Your task to perform on an android device: What's the weather going to be this weekend? Image 0: 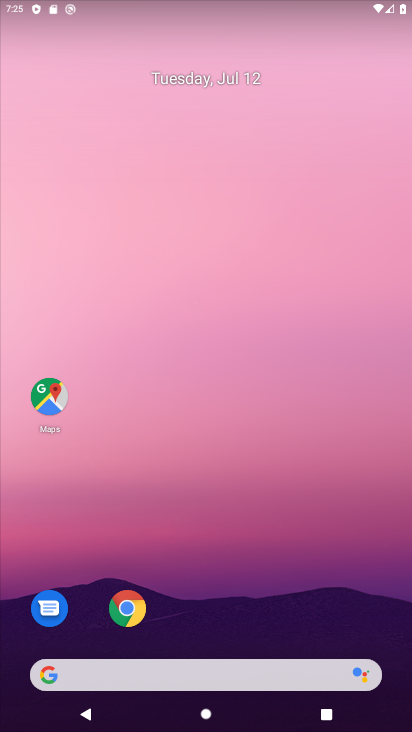
Step 0: drag from (264, 617) to (207, 5)
Your task to perform on an android device: What's the weather going to be this weekend? Image 1: 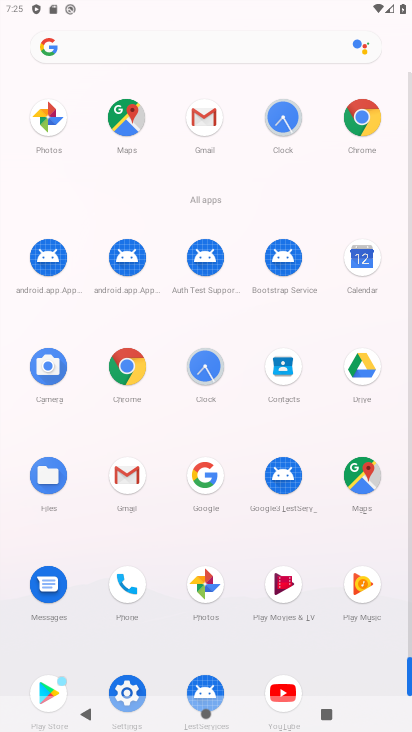
Step 1: click (368, 114)
Your task to perform on an android device: What's the weather going to be this weekend? Image 2: 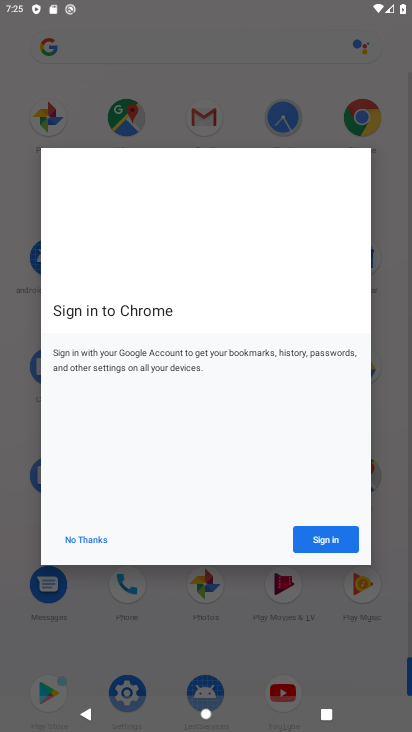
Step 2: click (77, 540)
Your task to perform on an android device: What's the weather going to be this weekend? Image 3: 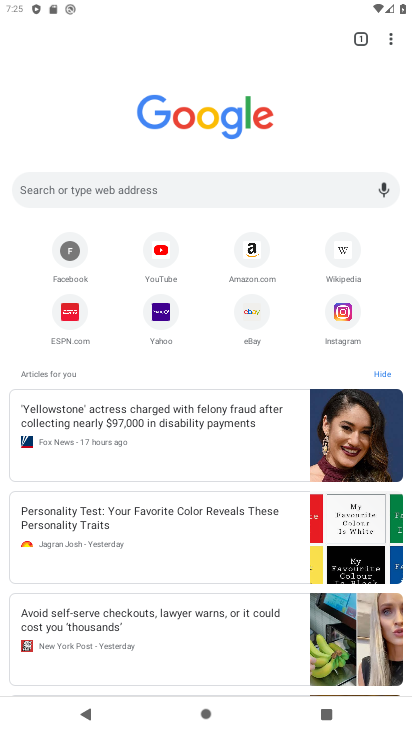
Step 3: click (209, 186)
Your task to perform on an android device: What's the weather going to be this weekend? Image 4: 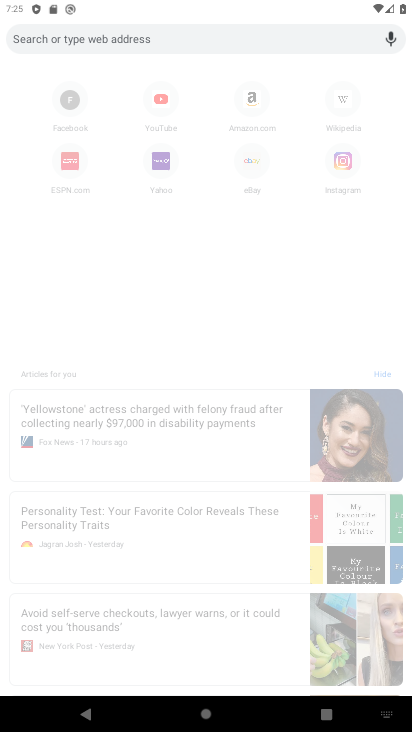
Step 4: type "What's the weather going to be this weekend "
Your task to perform on an android device: What's the weather going to be this weekend? Image 5: 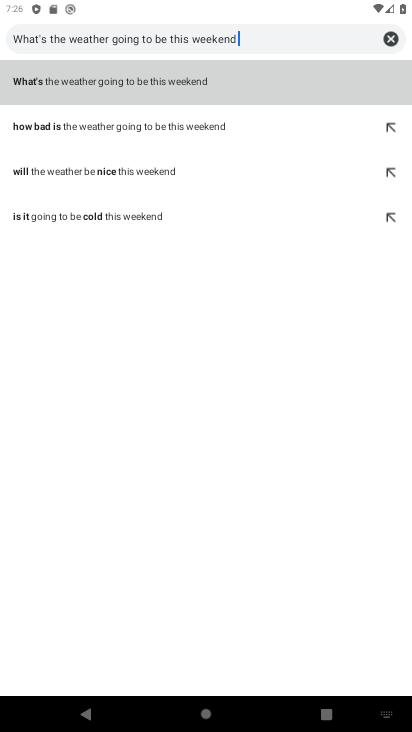
Step 5: click (261, 89)
Your task to perform on an android device: What's the weather going to be this weekend? Image 6: 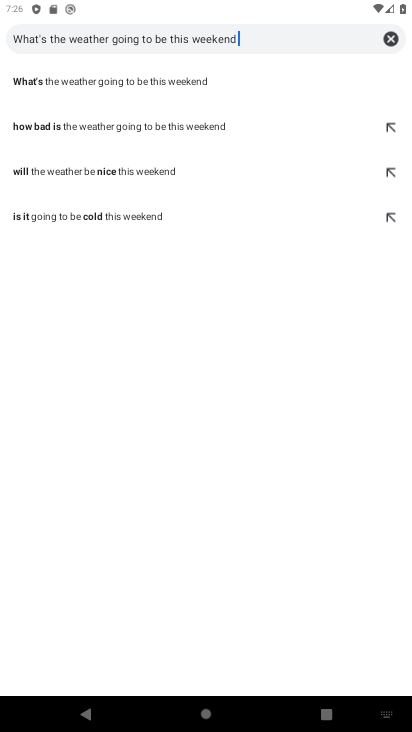
Step 6: click (104, 80)
Your task to perform on an android device: What's the weather going to be this weekend? Image 7: 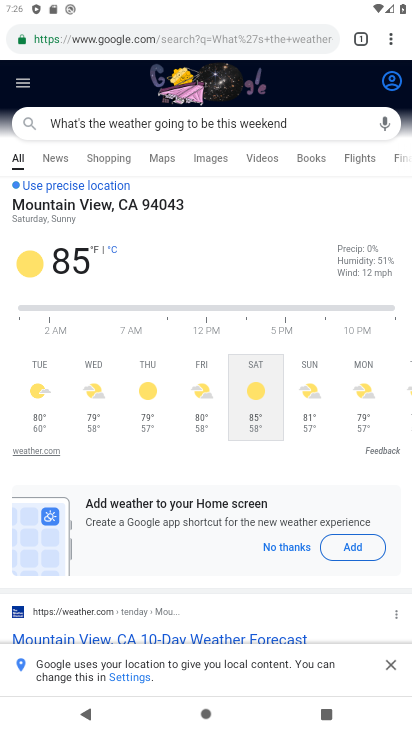
Step 7: task complete